Your task to perform on an android device: Open my contact list Image 0: 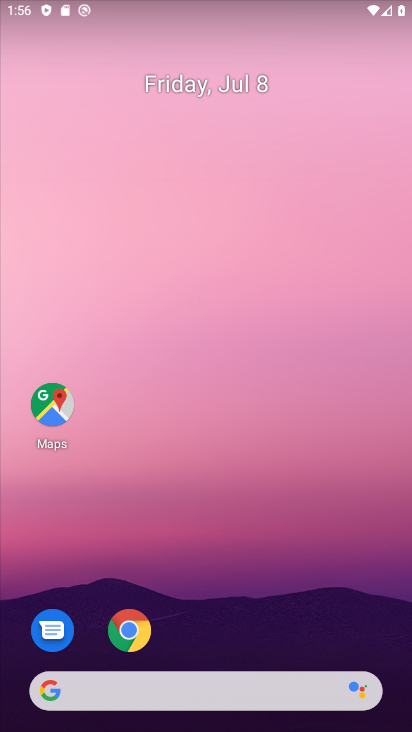
Step 0: drag from (324, 599) to (242, 76)
Your task to perform on an android device: Open my contact list Image 1: 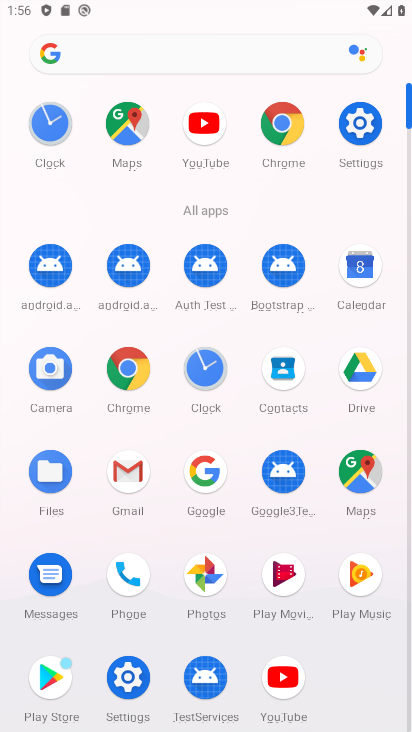
Step 1: click (284, 372)
Your task to perform on an android device: Open my contact list Image 2: 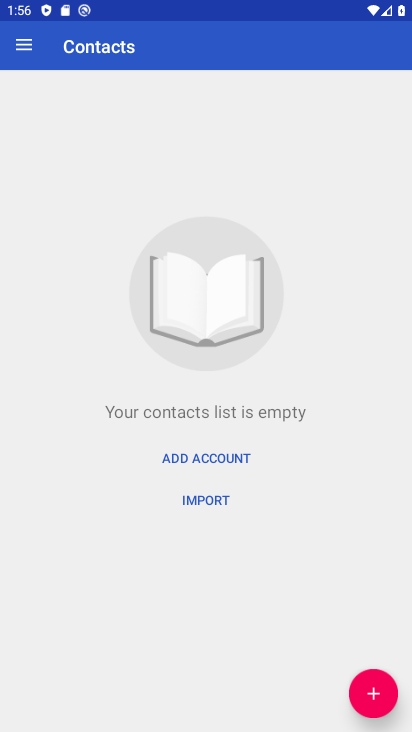
Step 2: task complete